Your task to perform on an android device: turn on sleep mode Image 0: 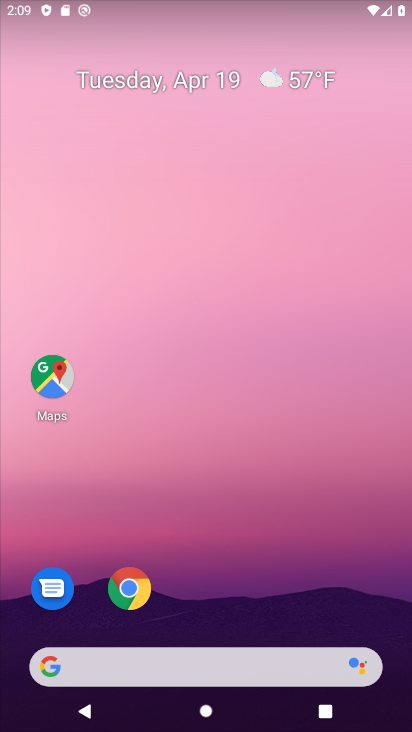
Step 0: drag from (312, 504) to (341, 49)
Your task to perform on an android device: turn on sleep mode Image 1: 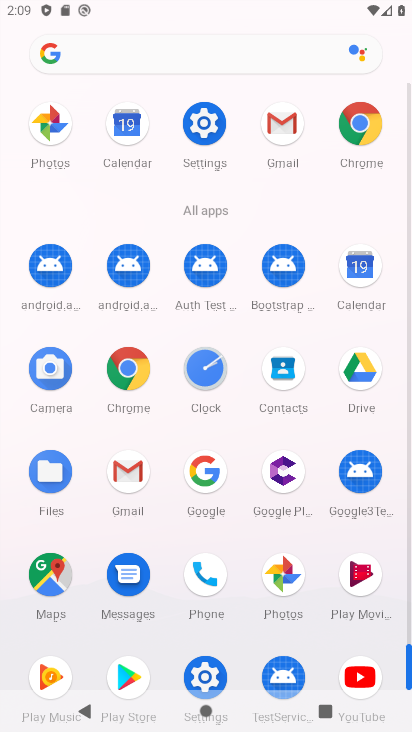
Step 1: click (201, 125)
Your task to perform on an android device: turn on sleep mode Image 2: 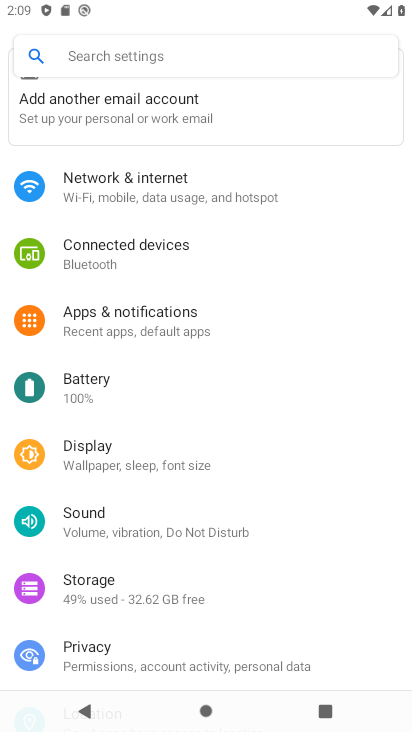
Step 2: click (148, 457)
Your task to perform on an android device: turn on sleep mode Image 3: 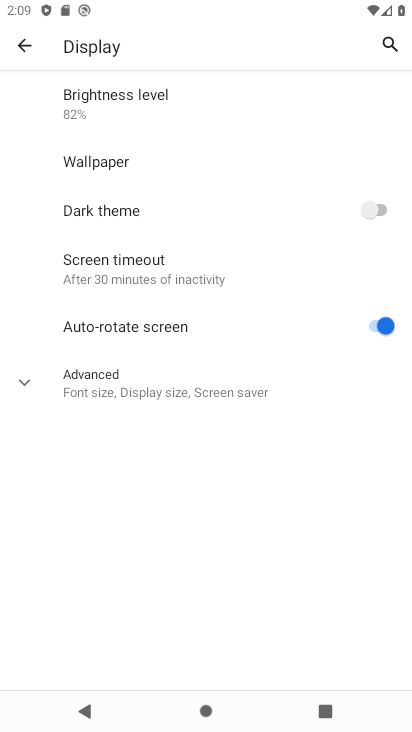
Step 3: click (28, 377)
Your task to perform on an android device: turn on sleep mode Image 4: 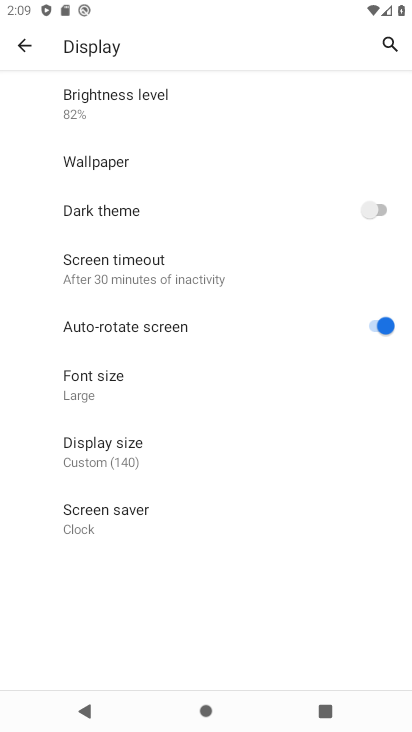
Step 4: task complete